Your task to perform on an android device: turn off notifications in google photos Image 0: 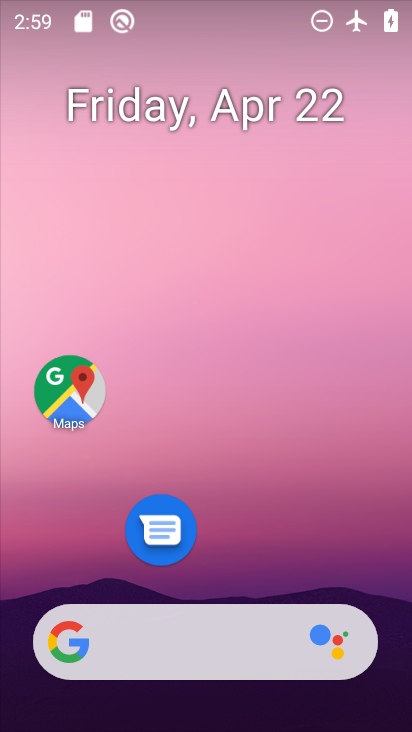
Step 0: drag from (245, 555) to (226, 77)
Your task to perform on an android device: turn off notifications in google photos Image 1: 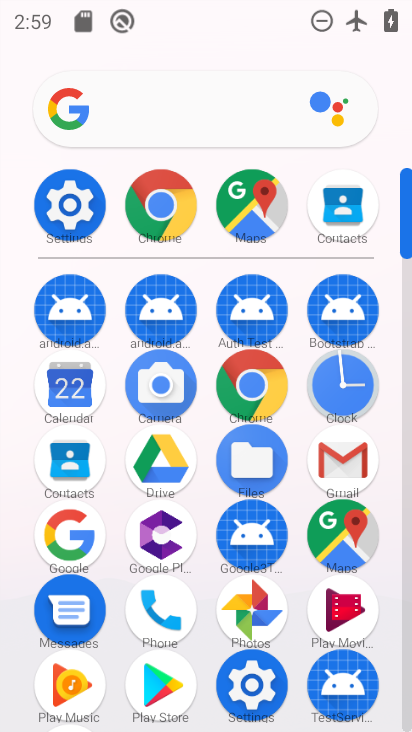
Step 1: click (247, 604)
Your task to perform on an android device: turn off notifications in google photos Image 2: 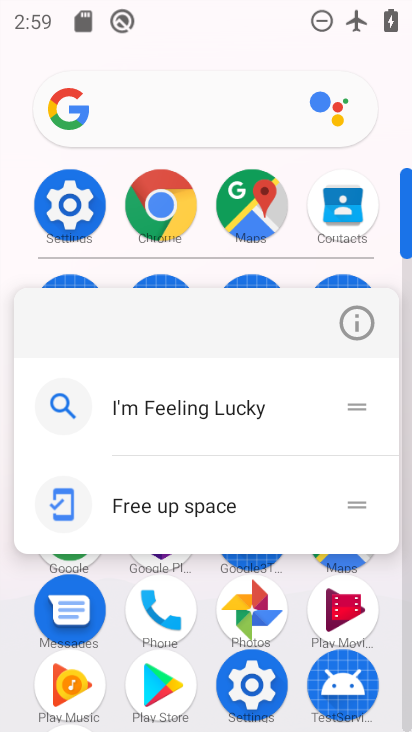
Step 2: click (241, 591)
Your task to perform on an android device: turn off notifications in google photos Image 3: 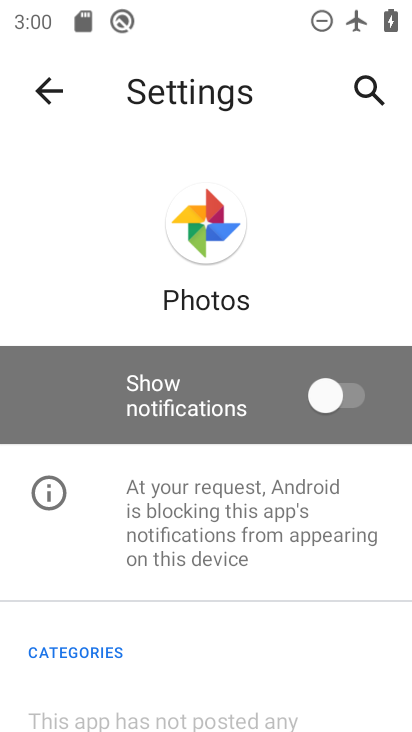
Step 3: task complete